Your task to perform on an android device: What's on my calendar tomorrow? Image 0: 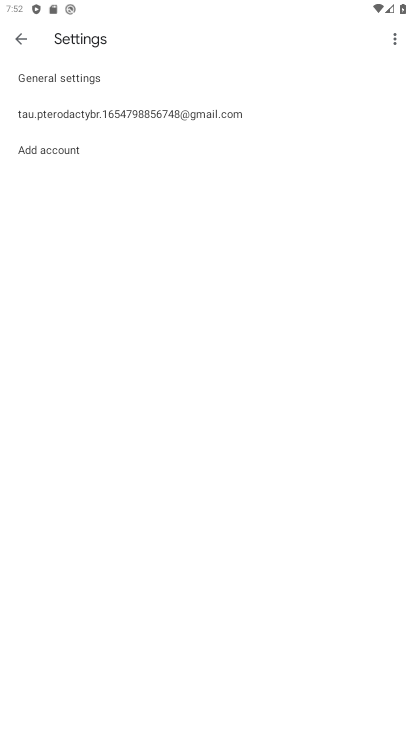
Step 0: press home button
Your task to perform on an android device: What's on my calendar tomorrow? Image 1: 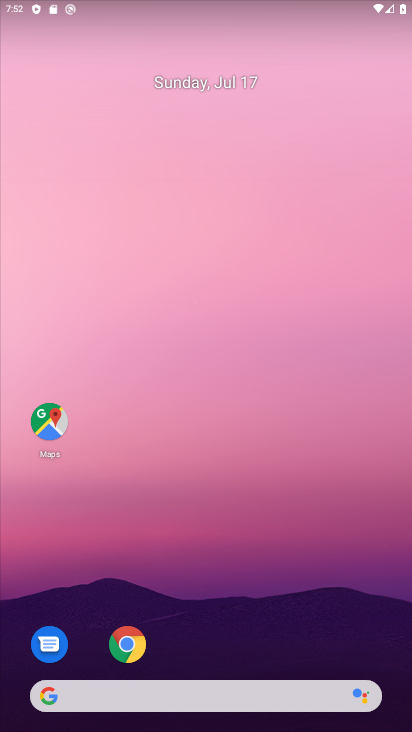
Step 1: drag from (254, 570) to (194, 136)
Your task to perform on an android device: What's on my calendar tomorrow? Image 2: 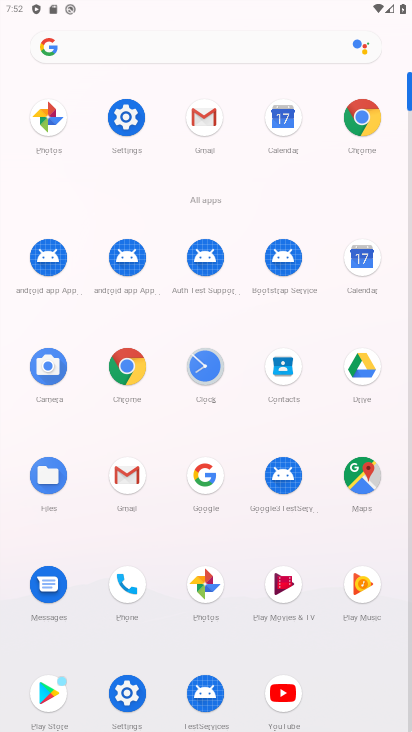
Step 2: click (284, 126)
Your task to perform on an android device: What's on my calendar tomorrow? Image 3: 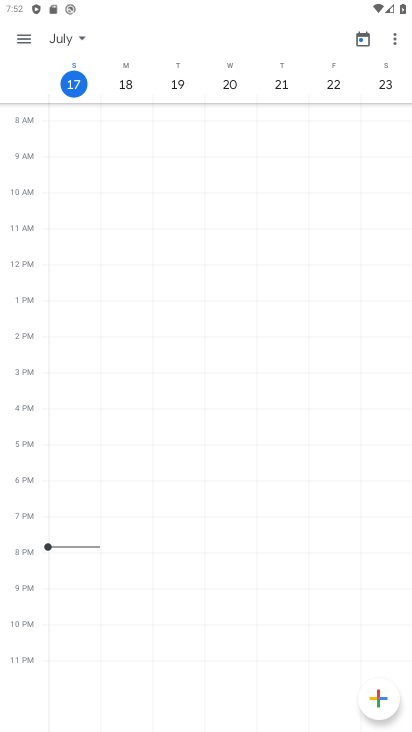
Step 3: click (127, 82)
Your task to perform on an android device: What's on my calendar tomorrow? Image 4: 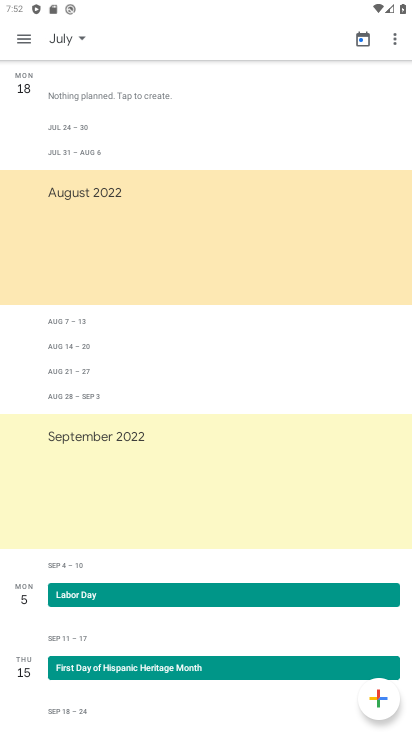
Step 4: task complete